Your task to perform on an android device: View the shopping cart on walmart. Add "sony triple a" to the cart on walmart Image 0: 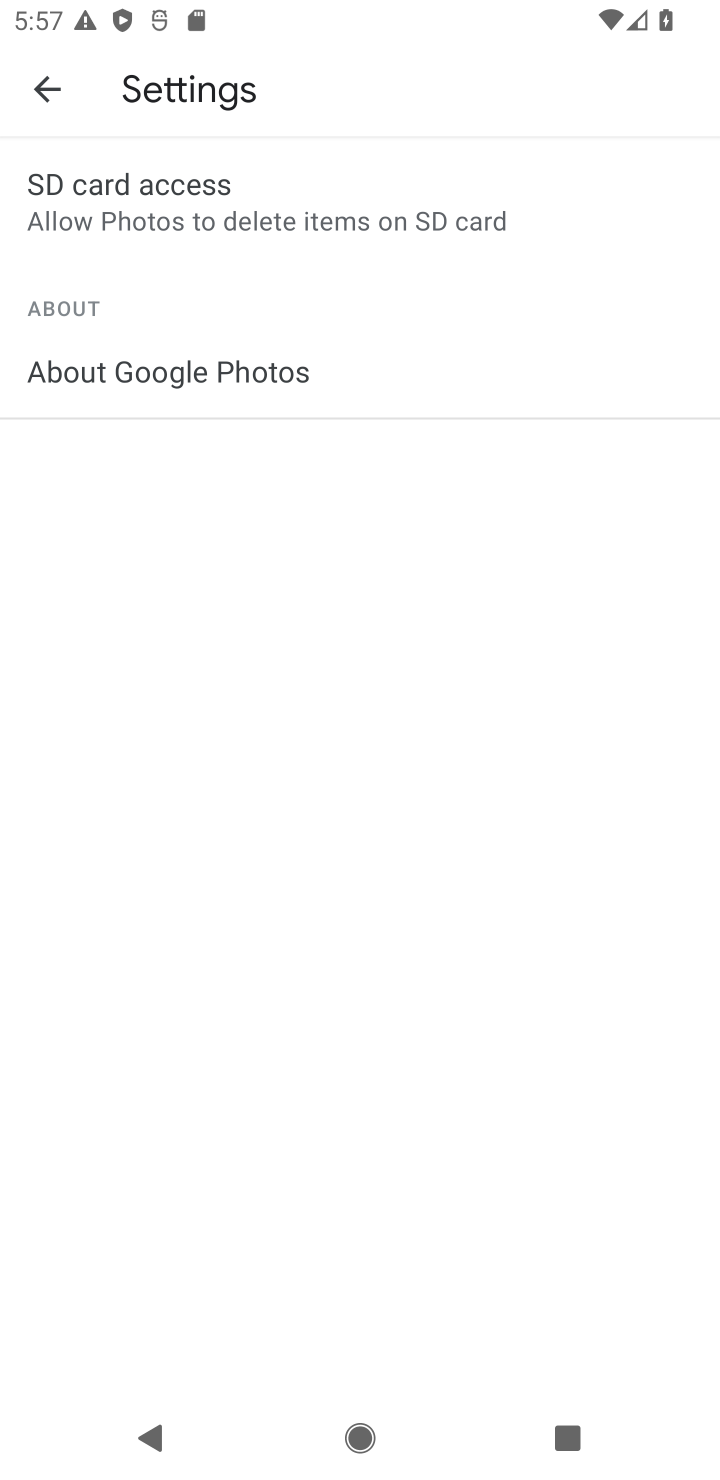
Step 0: press home button
Your task to perform on an android device: View the shopping cart on walmart. Add "sony triple a" to the cart on walmart Image 1: 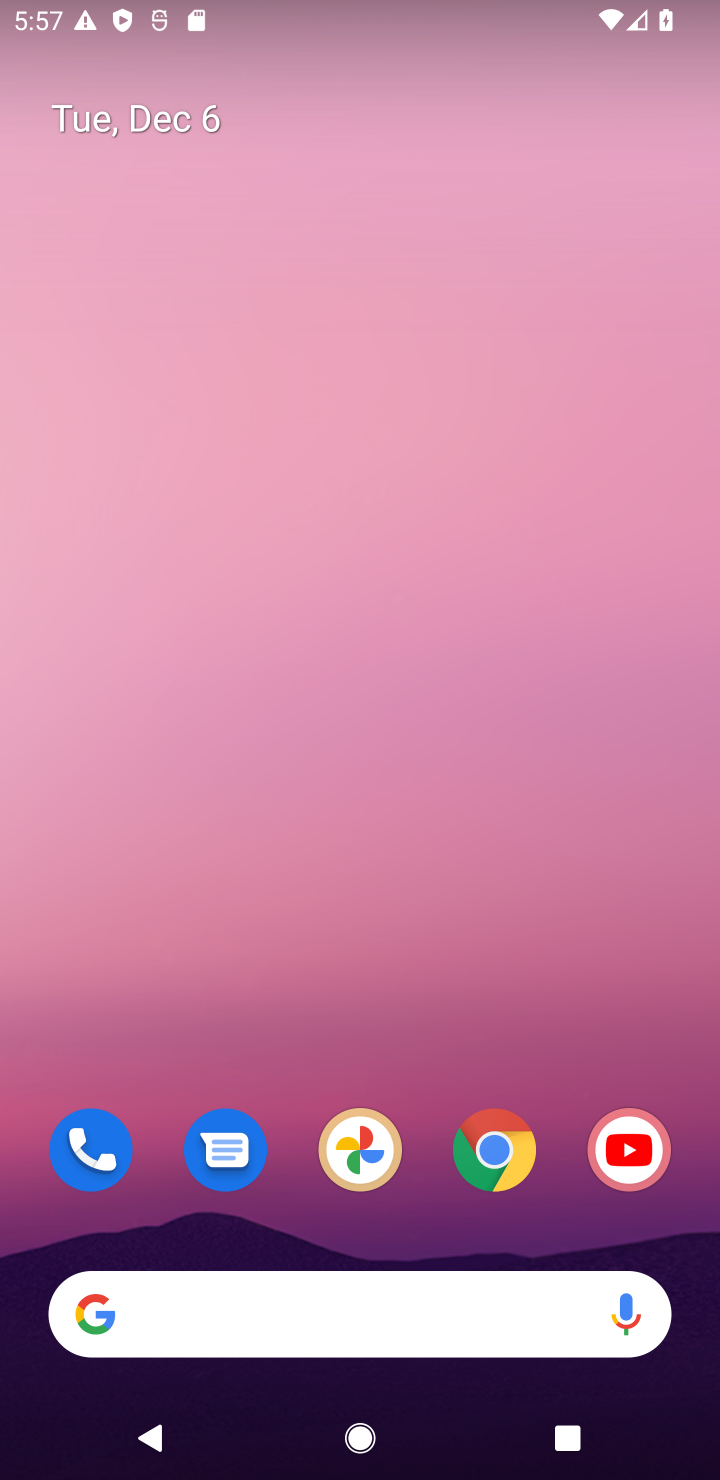
Step 1: click (492, 1150)
Your task to perform on an android device: View the shopping cart on walmart. Add "sony triple a" to the cart on walmart Image 2: 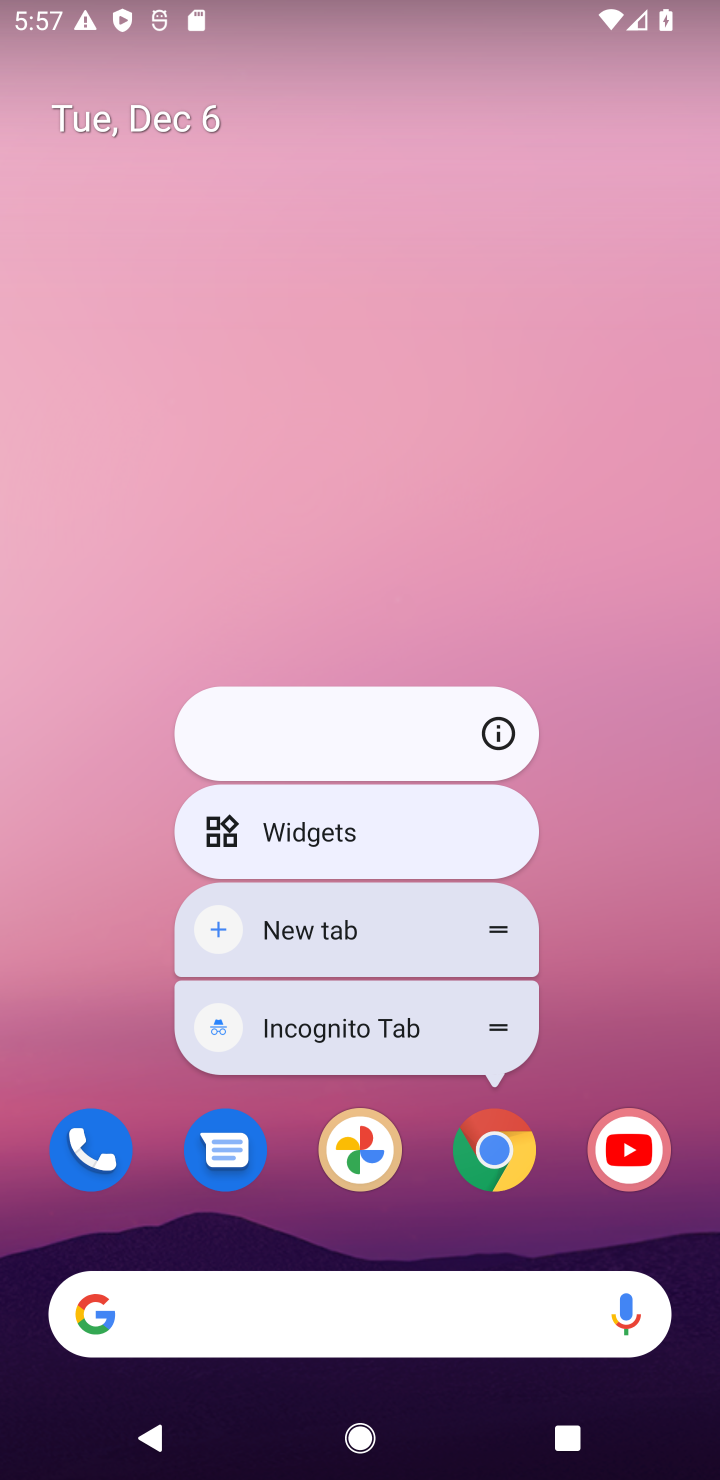
Step 2: click (492, 1150)
Your task to perform on an android device: View the shopping cart on walmart. Add "sony triple a" to the cart on walmart Image 3: 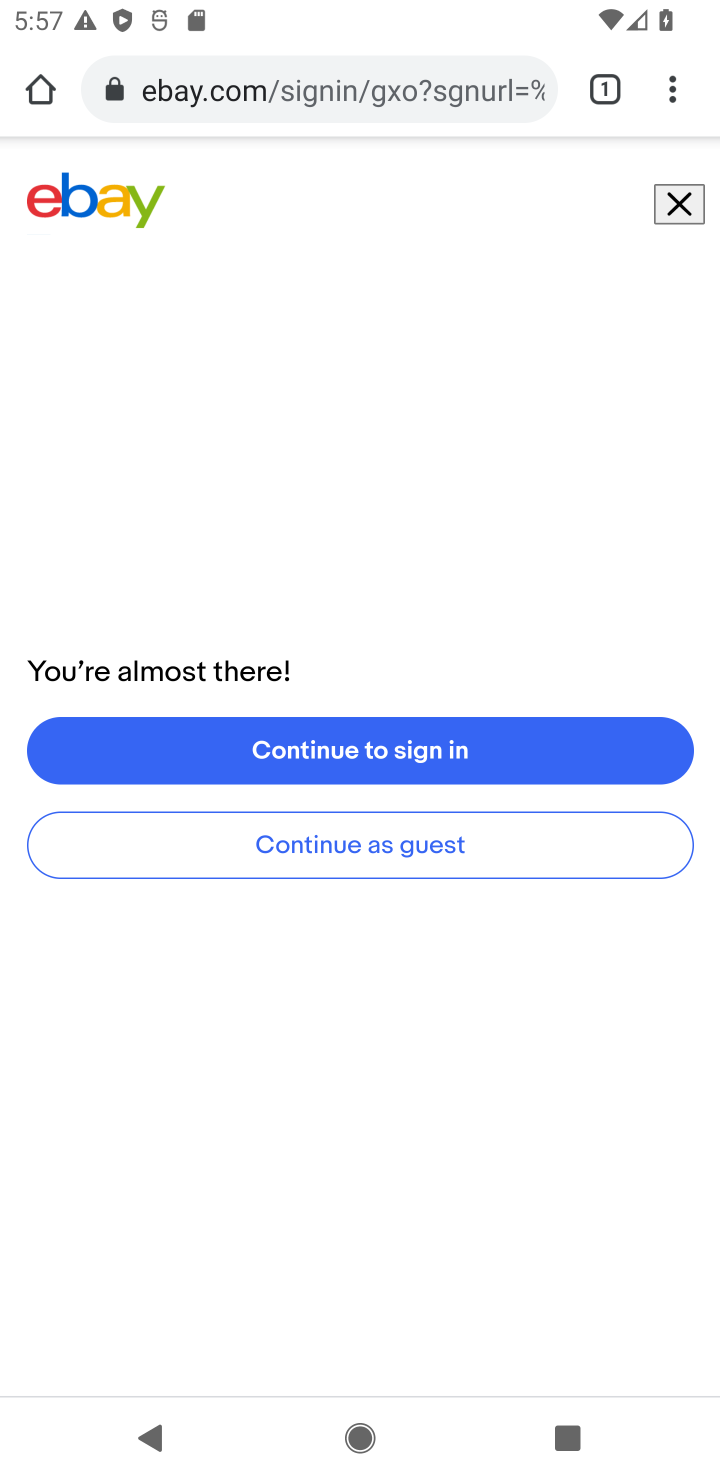
Step 3: click (269, 84)
Your task to perform on an android device: View the shopping cart on walmart. Add "sony triple a" to the cart on walmart Image 4: 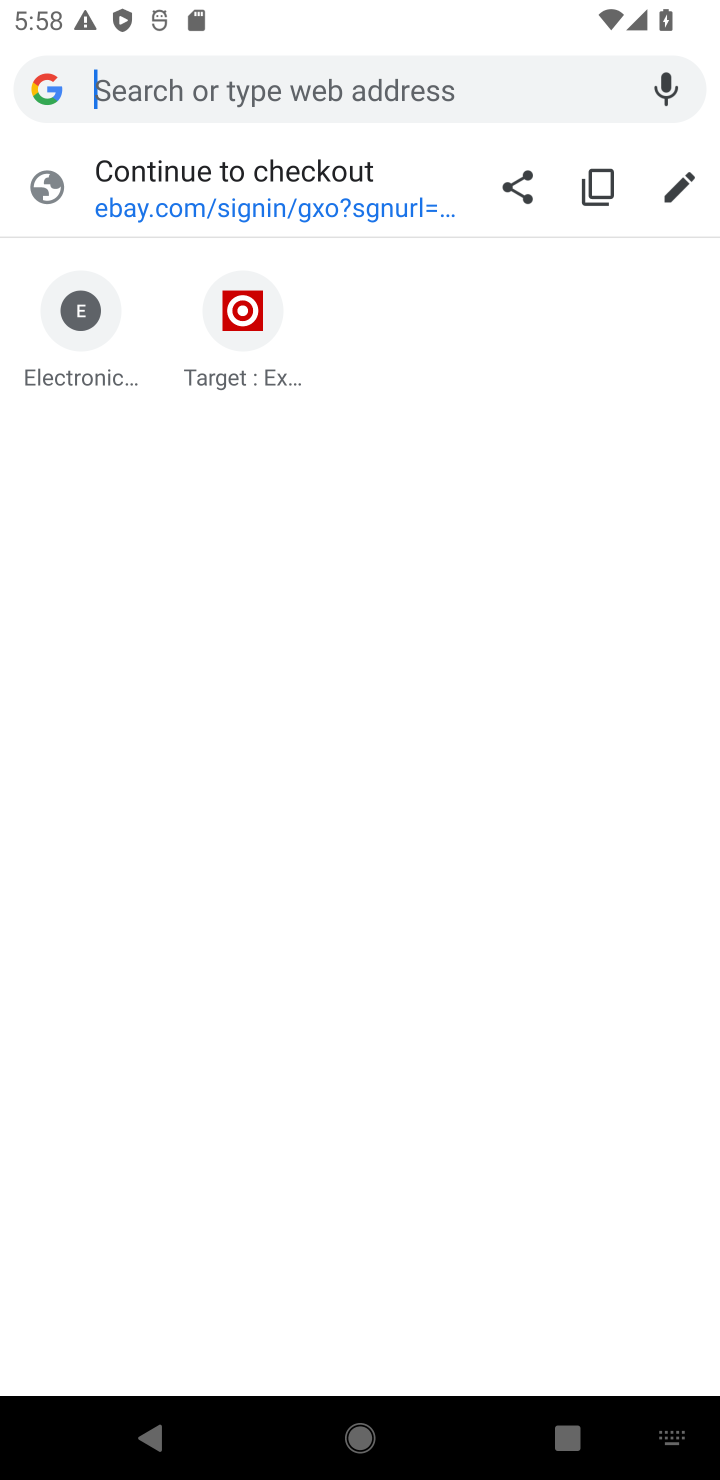
Step 4: type "walmart.com"
Your task to perform on an android device: View the shopping cart on walmart. Add "sony triple a" to the cart on walmart Image 5: 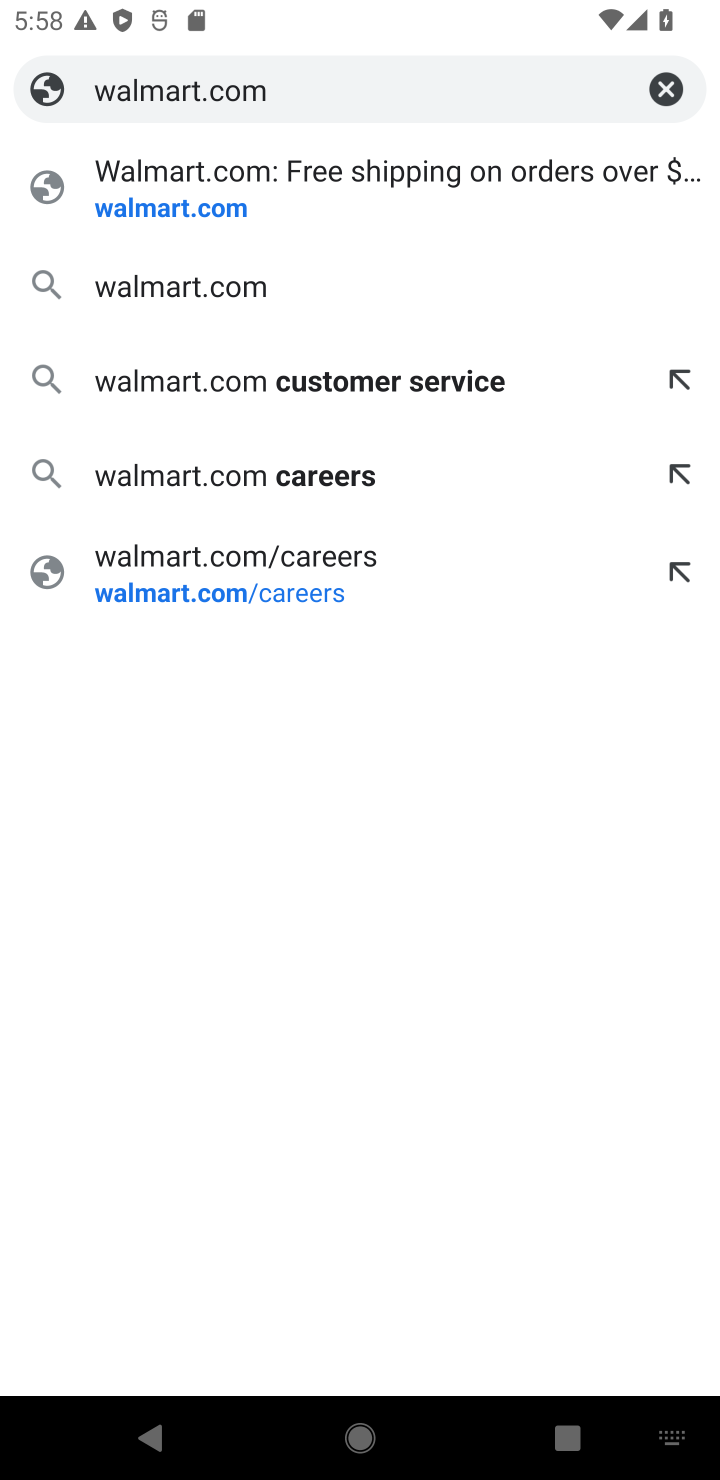
Step 5: click (182, 202)
Your task to perform on an android device: View the shopping cart on walmart. Add "sony triple a" to the cart on walmart Image 6: 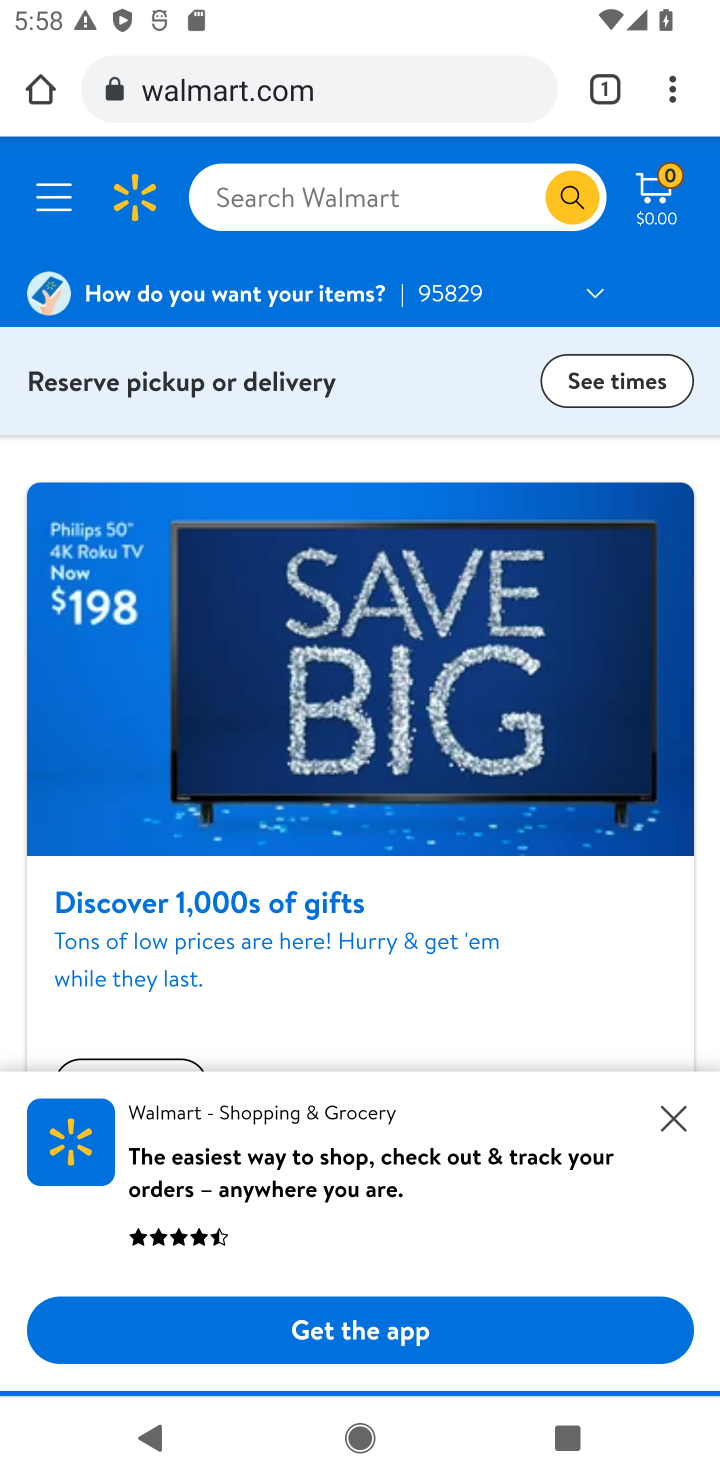
Step 6: click (661, 193)
Your task to perform on an android device: View the shopping cart on walmart. Add "sony triple a" to the cart on walmart Image 7: 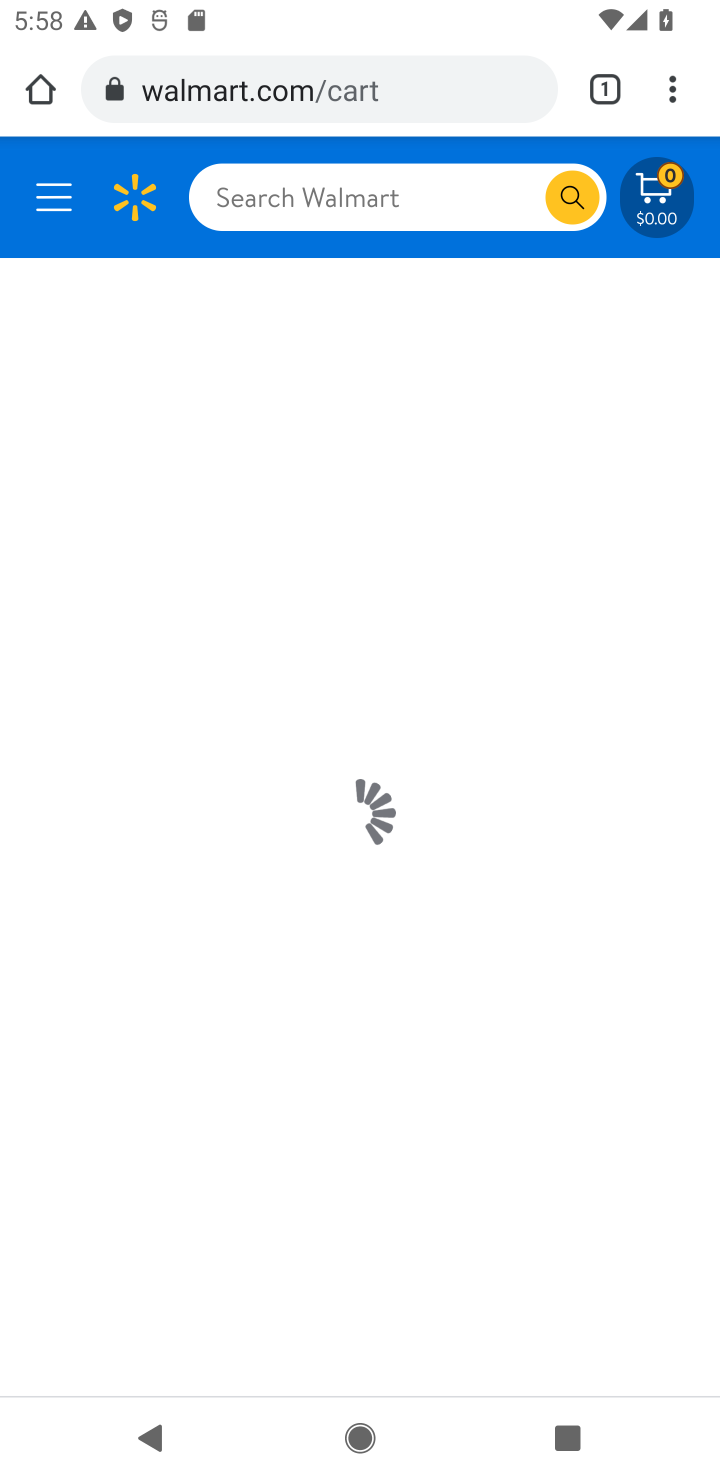
Step 7: click (251, 207)
Your task to perform on an android device: View the shopping cart on walmart. Add "sony triple a" to the cart on walmart Image 8: 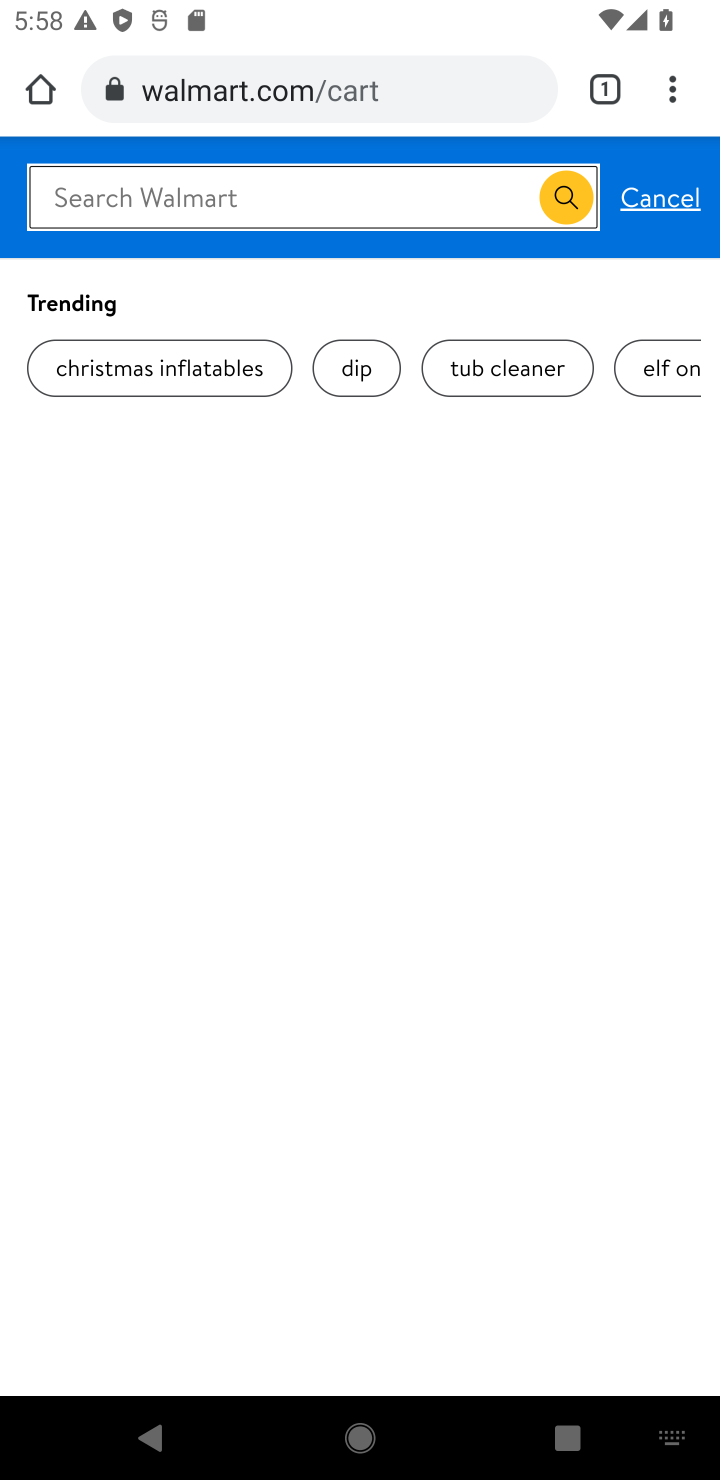
Step 8: type "sony triple a"
Your task to perform on an android device: View the shopping cart on walmart. Add "sony triple a" to the cart on walmart Image 9: 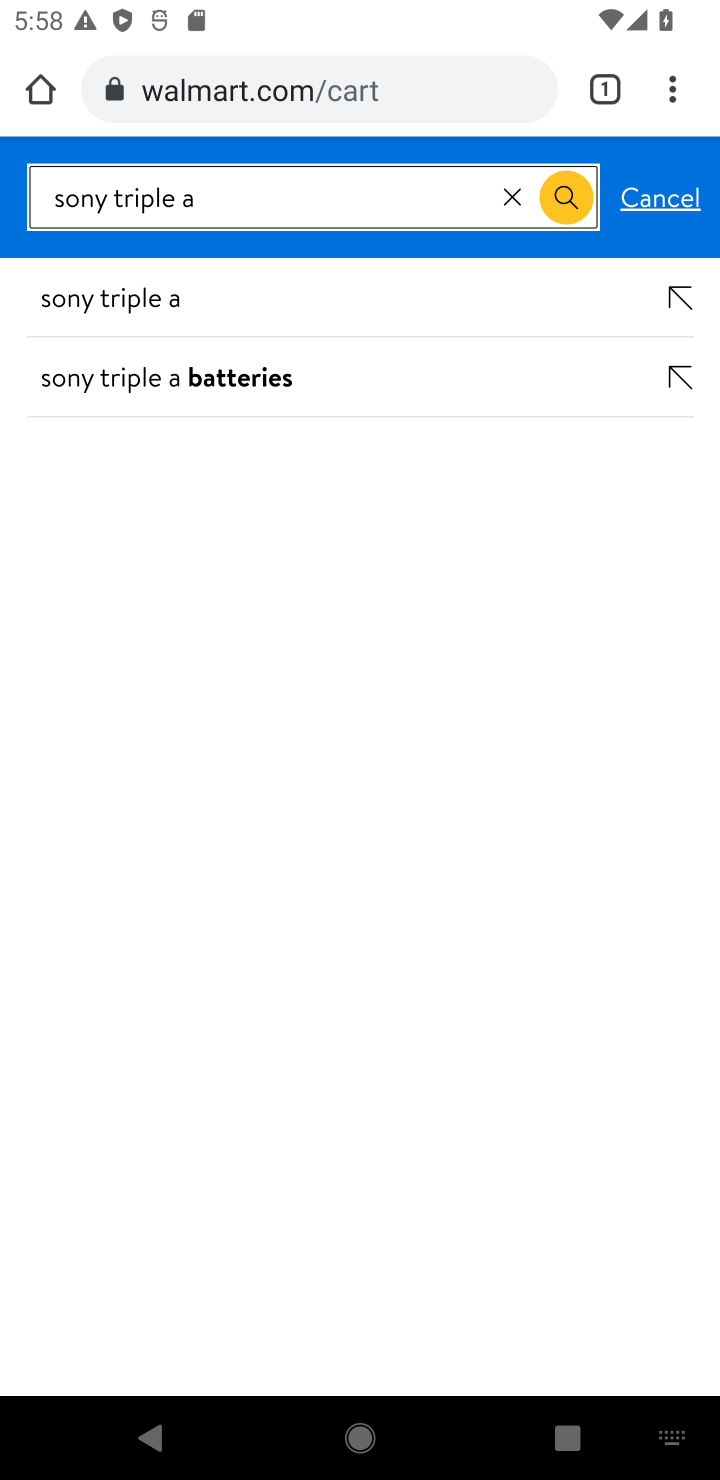
Step 9: click (113, 293)
Your task to perform on an android device: View the shopping cart on walmart. Add "sony triple a" to the cart on walmart Image 10: 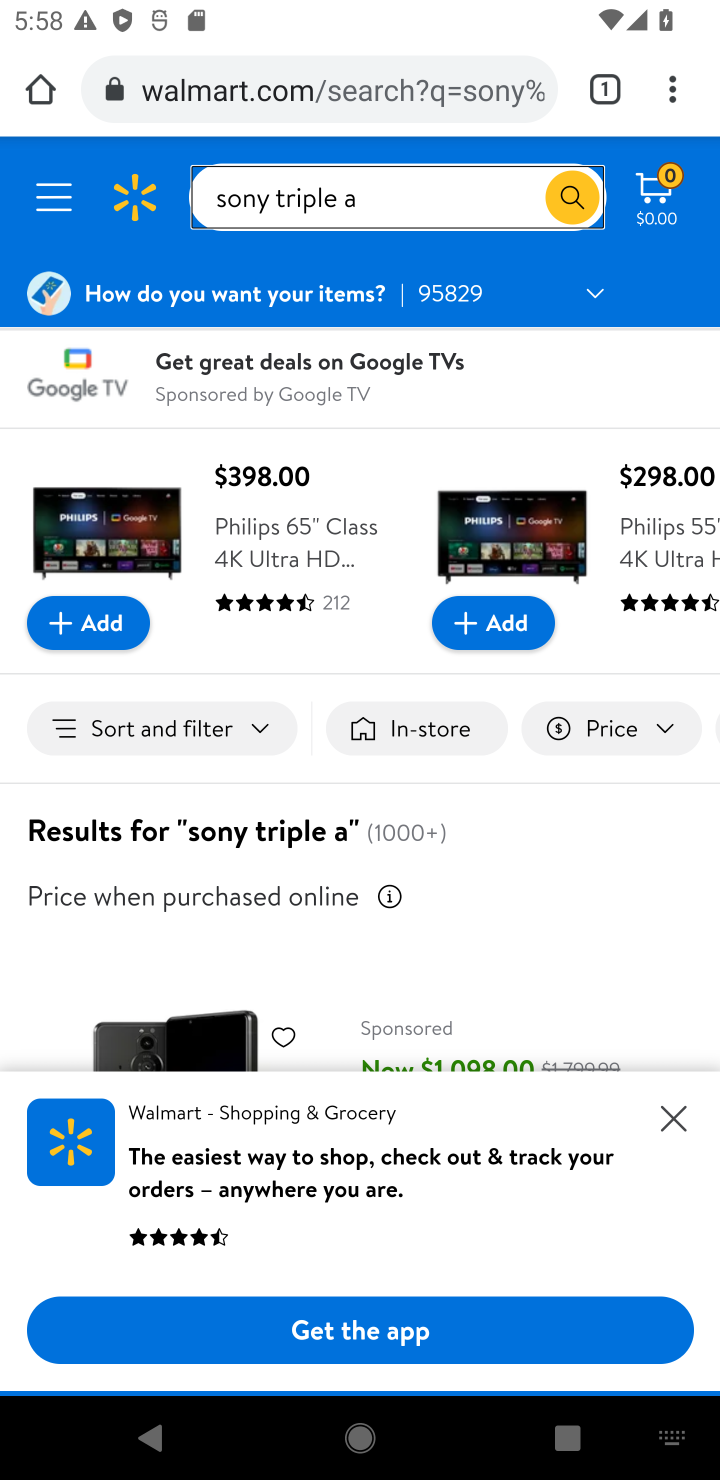
Step 10: click (669, 1119)
Your task to perform on an android device: View the shopping cart on walmart. Add "sony triple a" to the cart on walmart Image 11: 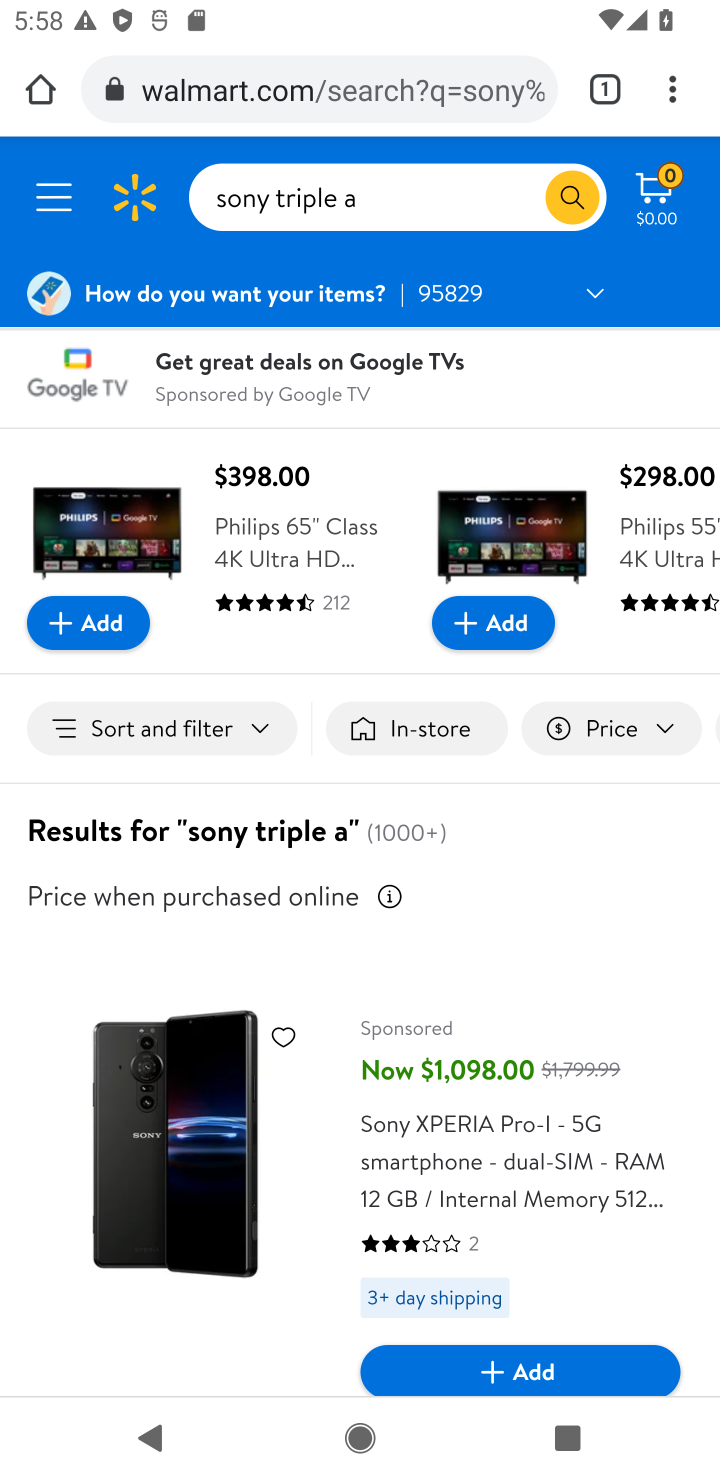
Step 11: drag from (417, 972) to (383, 602)
Your task to perform on an android device: View the shopping cart on walmart. Add "sony triple a" to the cart on walmart Image 12: 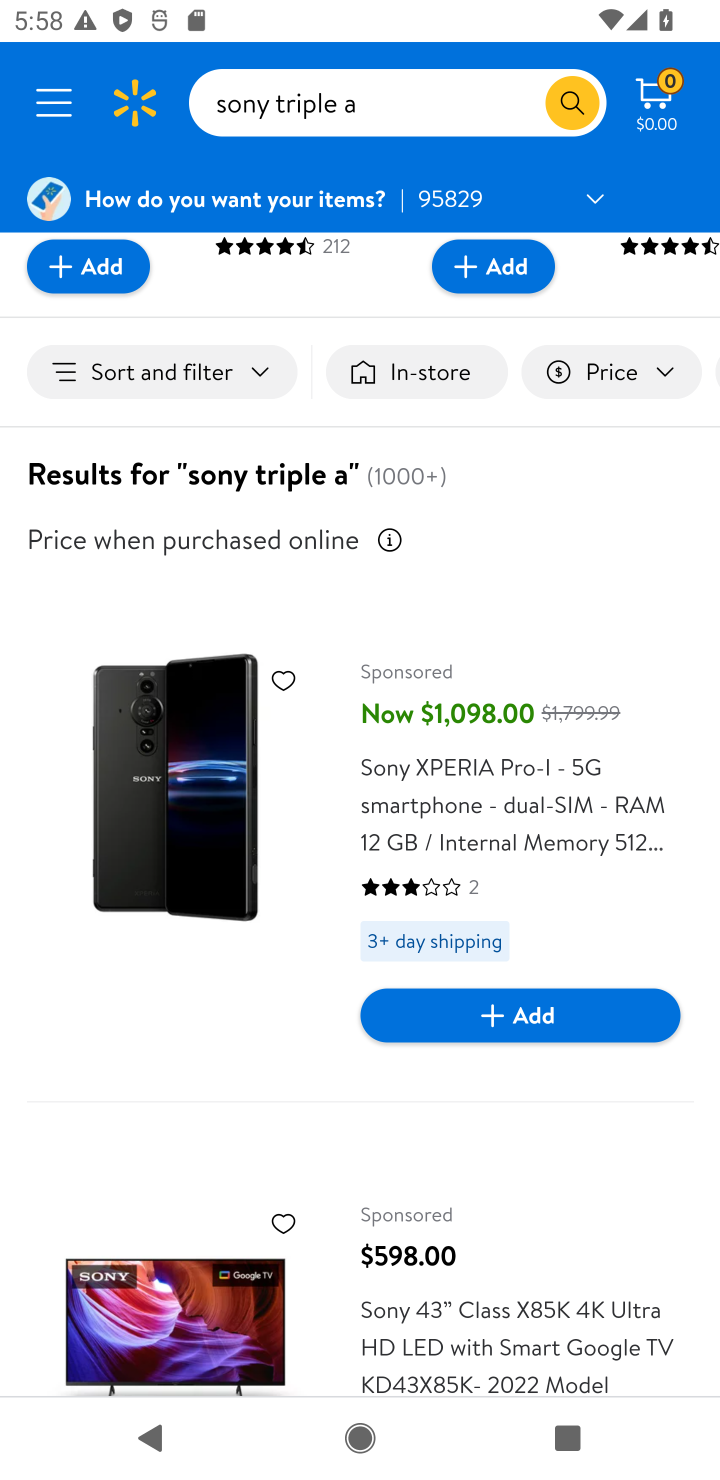
Step 12: drag from (255, 850) to (226, 728)
Your task to perform on an android device: View the shopping cart on walmart. Add "sony triple a" to the cart on walmart Image 13: 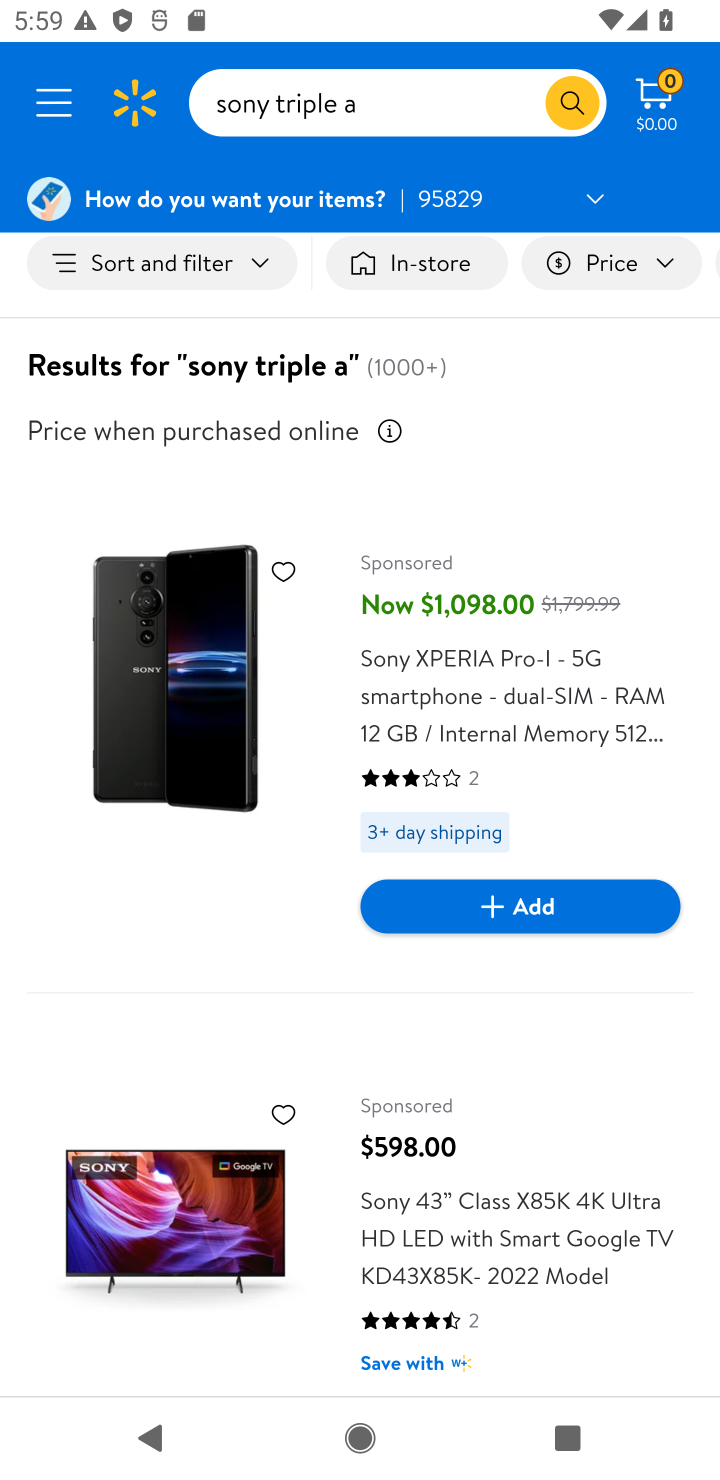
Step 13: drag from (272, 1213) to (255, 615)
Your task to perform on an android device: View the shopping cart on walmart. Add "sony triple a" to the cart on walmart Image 14: 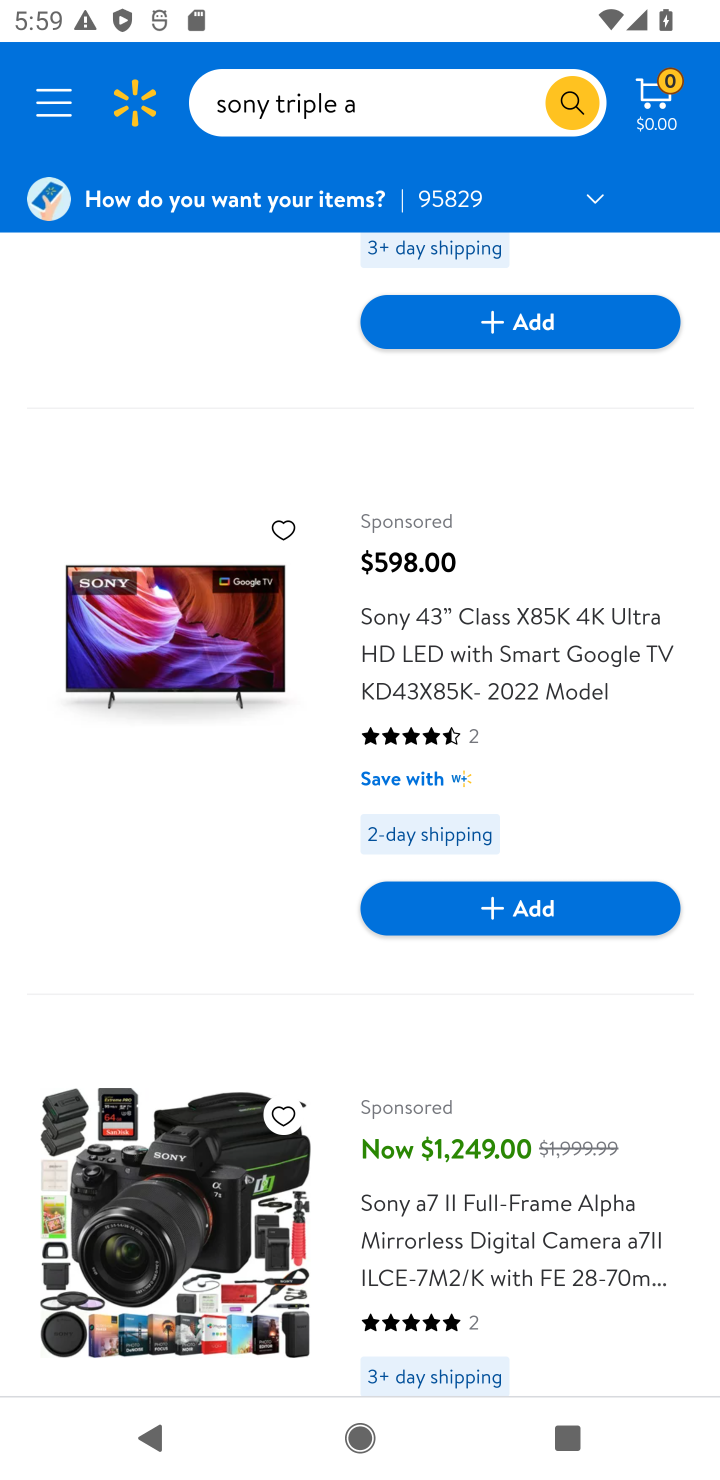
Step 14: drag from (202, 919) to (192, 638)
Your task to perform on an android device: View the shopping cart on walmart. Add "sony triple a" to the cart on walmart Image 15: 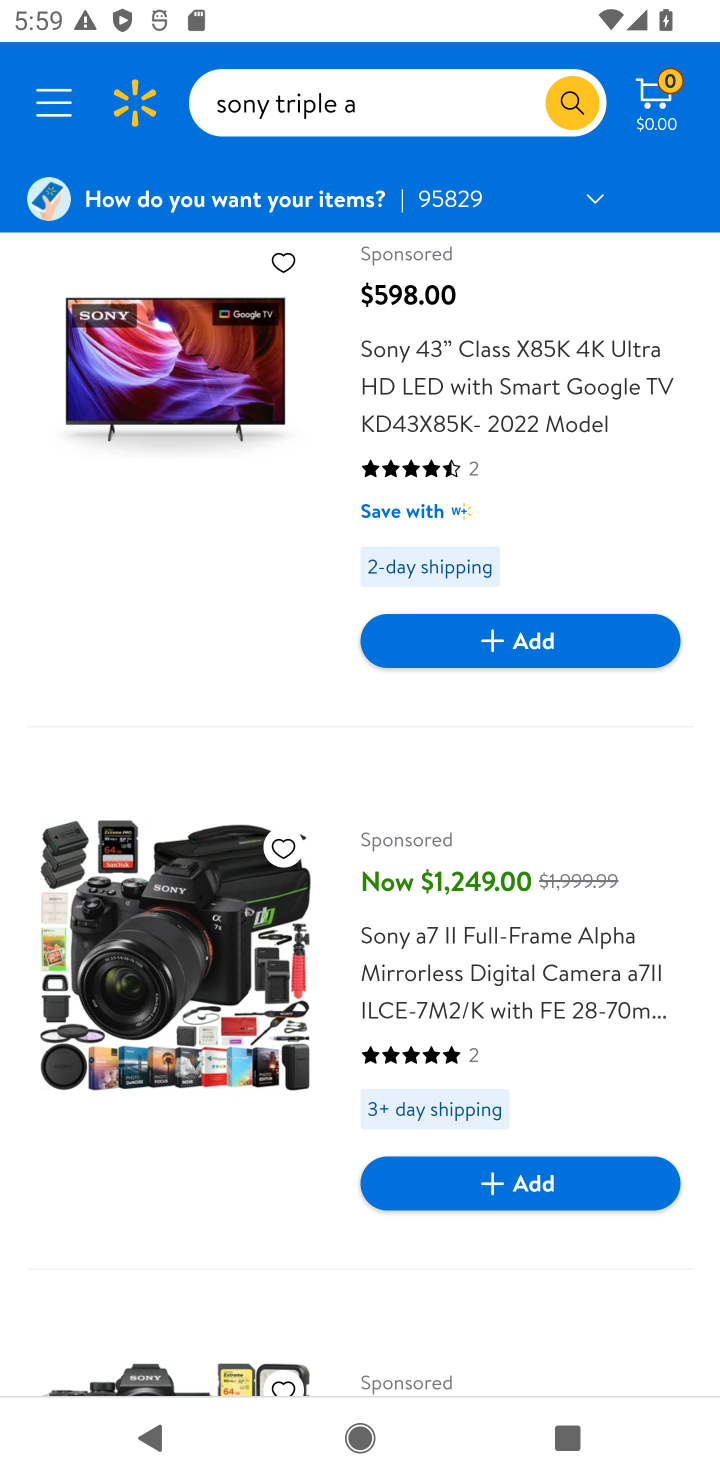
Step 15: drag from (233, 743) to (211, 564)
Your task to perform on an android device: View the shopping cart on walmart. Add "sony triple a" to the cart on walmart Image 16: 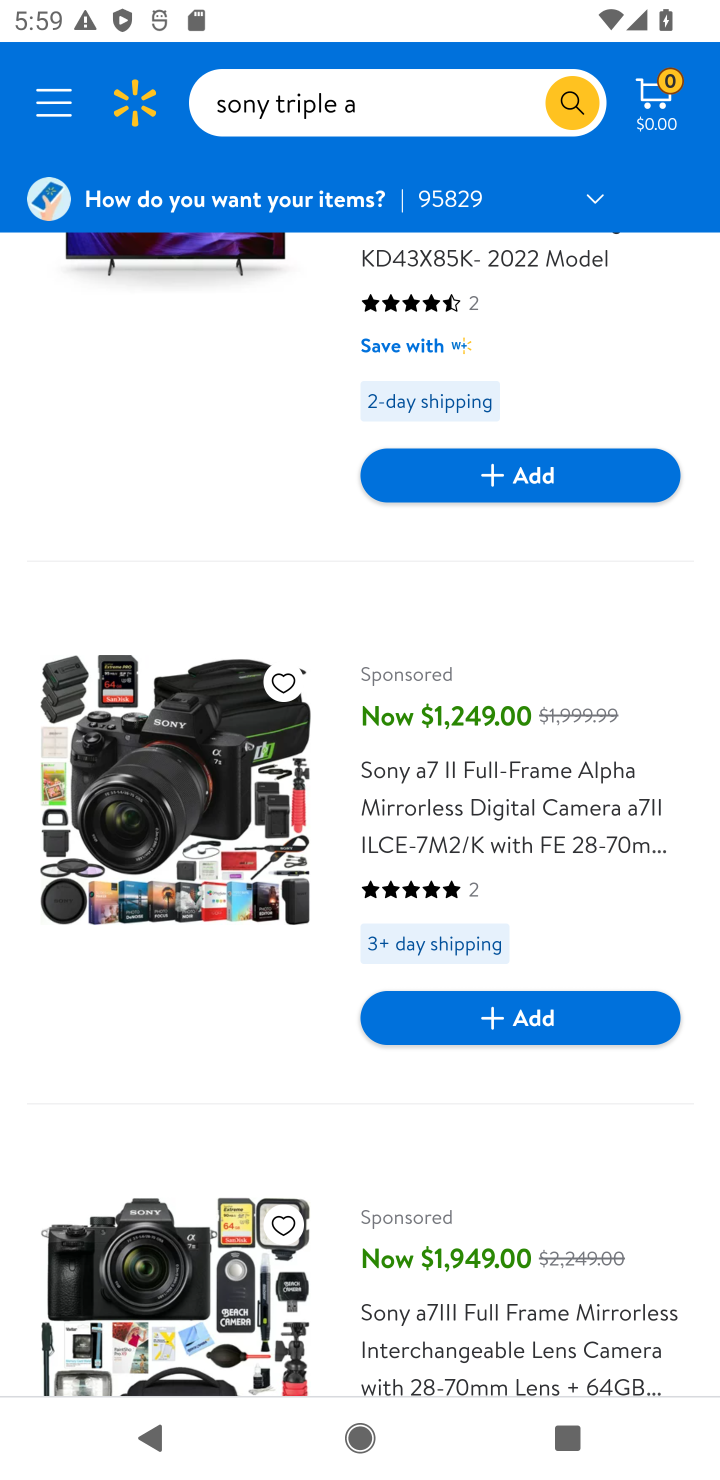
Step 16: drag from (264, 1294) to (228, 542)
Your task to perform on an android device: View the shopping cart on walmart. Add "sony triple a" to the cart on walmart Image 17: 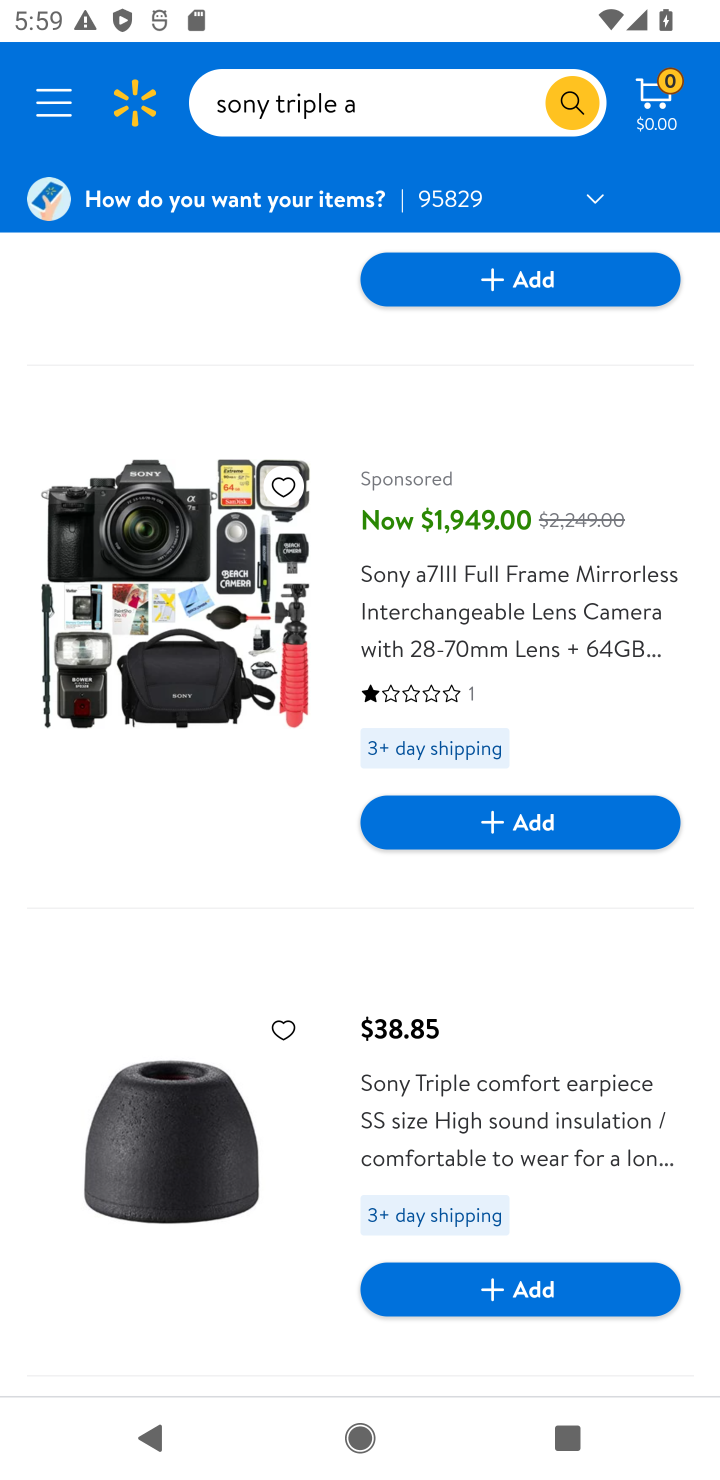
Step 17: drag from (237, 1129) to (206, 571)
Your task to perform on an android device: View the shopping cart on walmart. Add "sony triple a" to the cart on walmart Image 18: 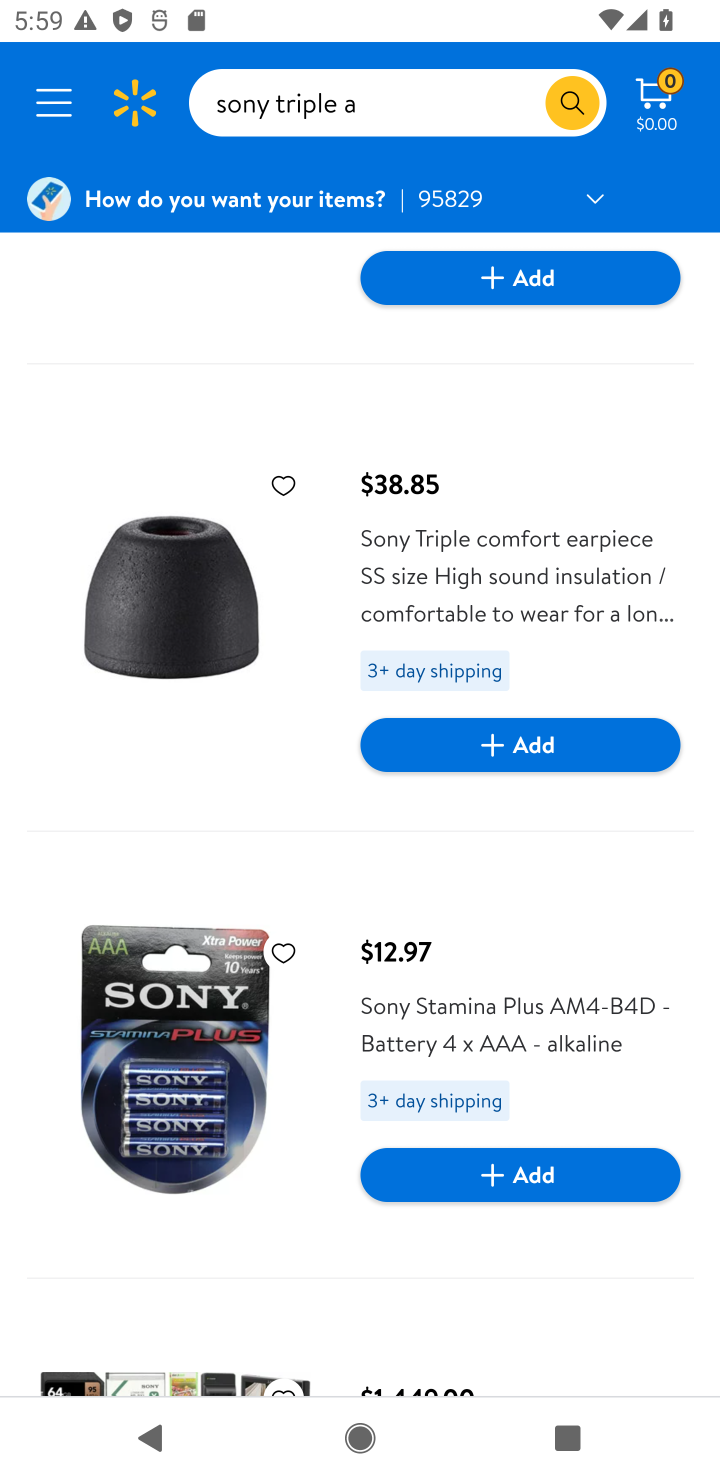
Step 18: click (458, 1181)
Your task to perform on an android device: View the shopping cart on walmart. Add "sony triple a" to the cart on walmart Image 19: 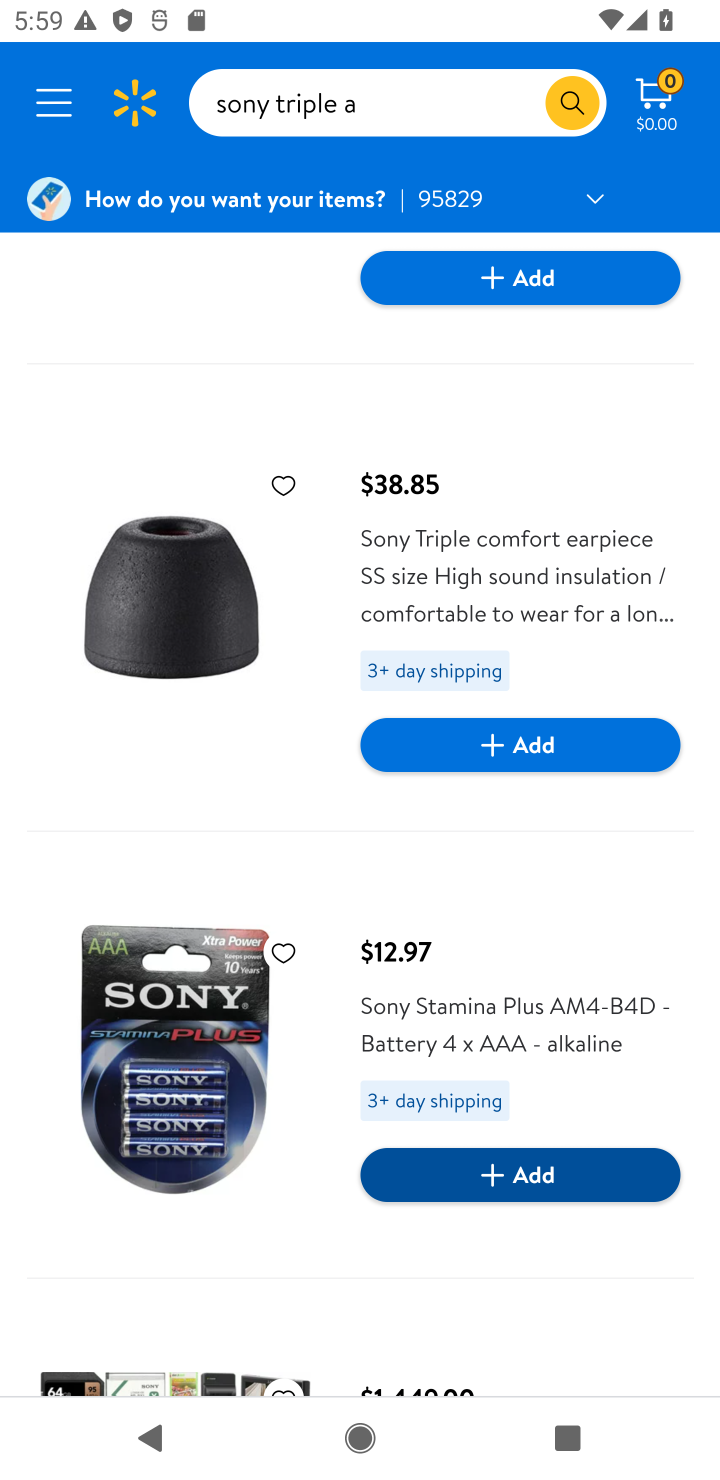
Step 19: click (511, 1194)
Your task to perform on an android device: View the shopping cart on walmart. Add "sony triple a" to the cart on walmart Image 20: 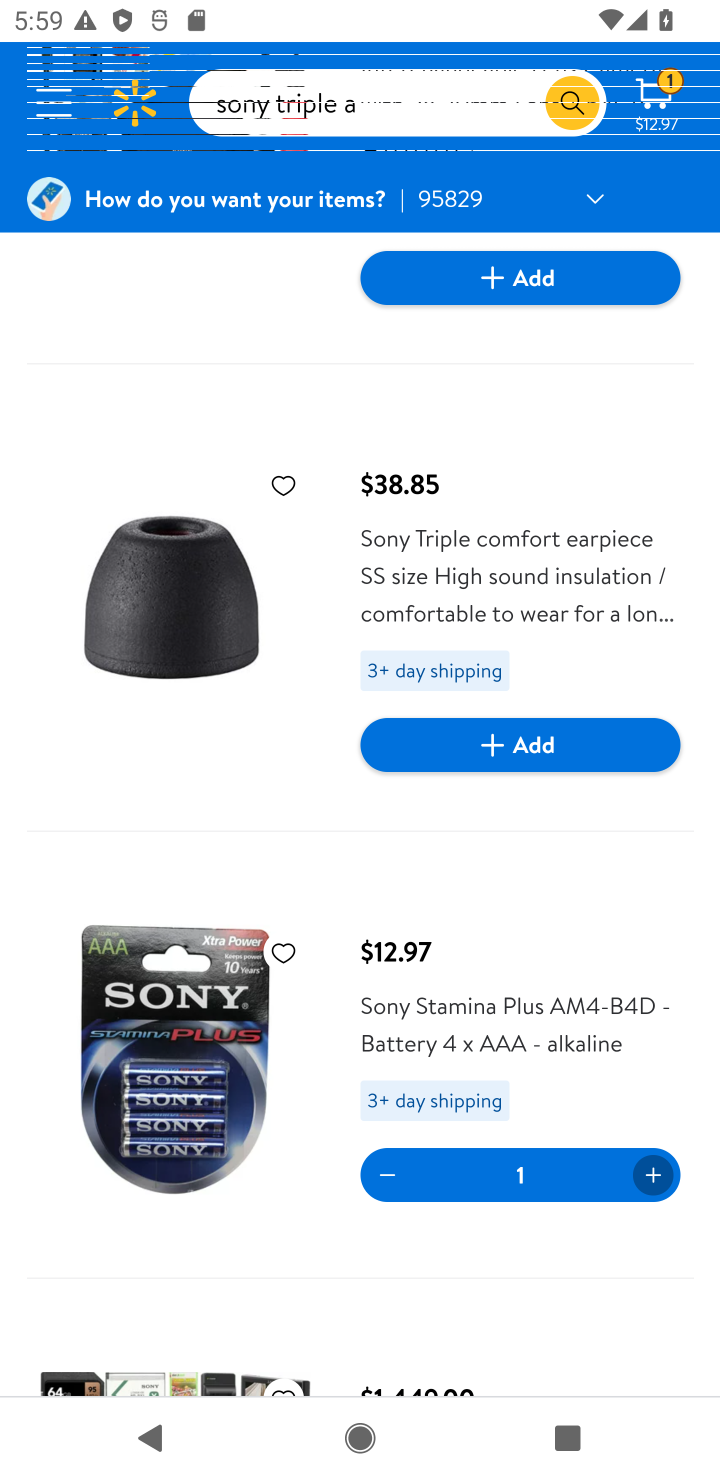
Step 20: task complete